Your task to perform on an android device: What's the weather? Image 0: 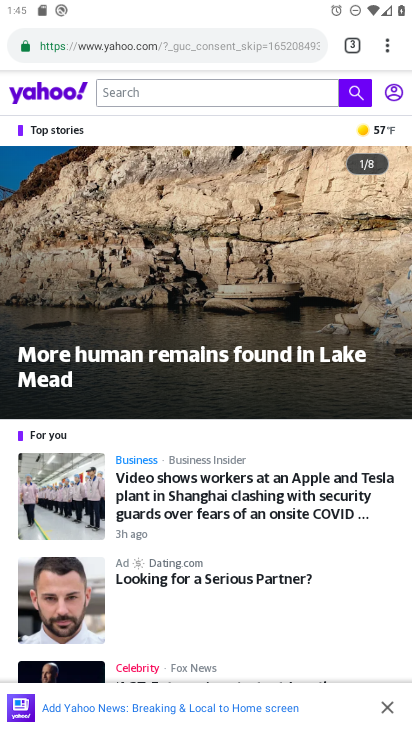
Step 0: press home button
Your task to perform on an android device: What's the weather? Image 1: 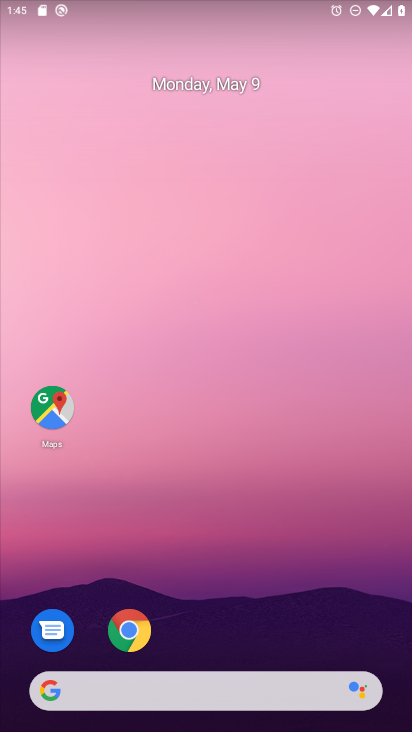
Step 1: drag from (238, 701) to (351, 151)
Your task to perform on an android device: What's the weather? Image 2: 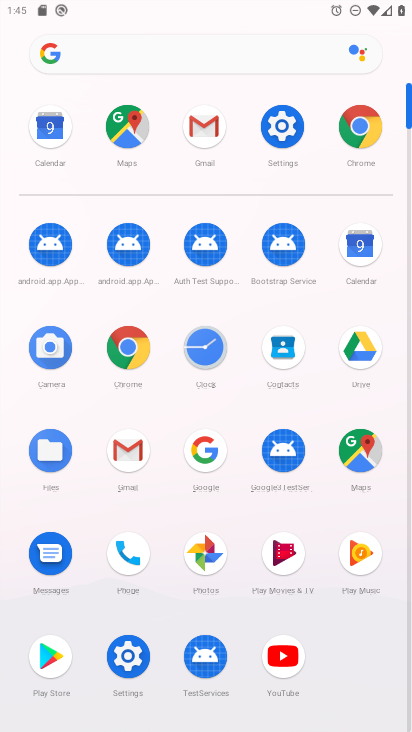
Step 2: click (159, 59)
Your task to perform on an android device: What's the weather? Image 3: 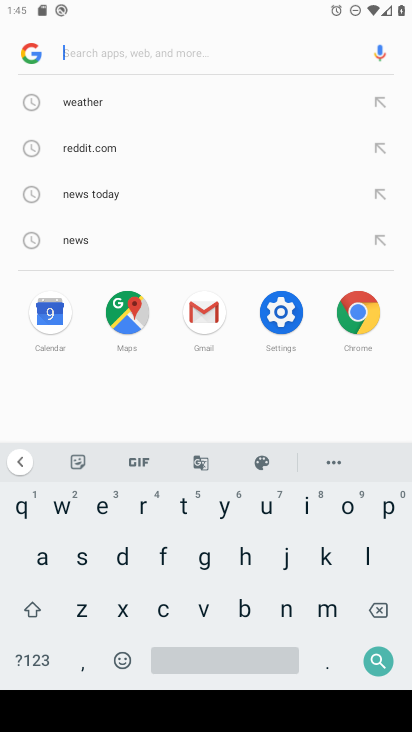
Step 3: click (106, 105)
Your task to perform on an android device: What's the weather? Image 4: 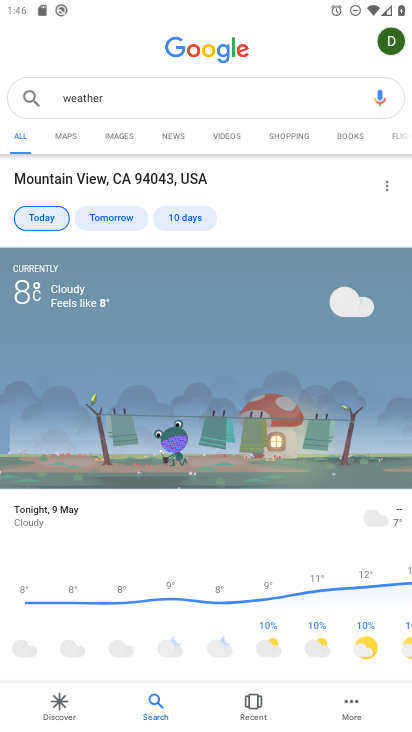
Step 4: task complete